Your task to perform on an android device: install app "Facebook Messenger" Image 0: 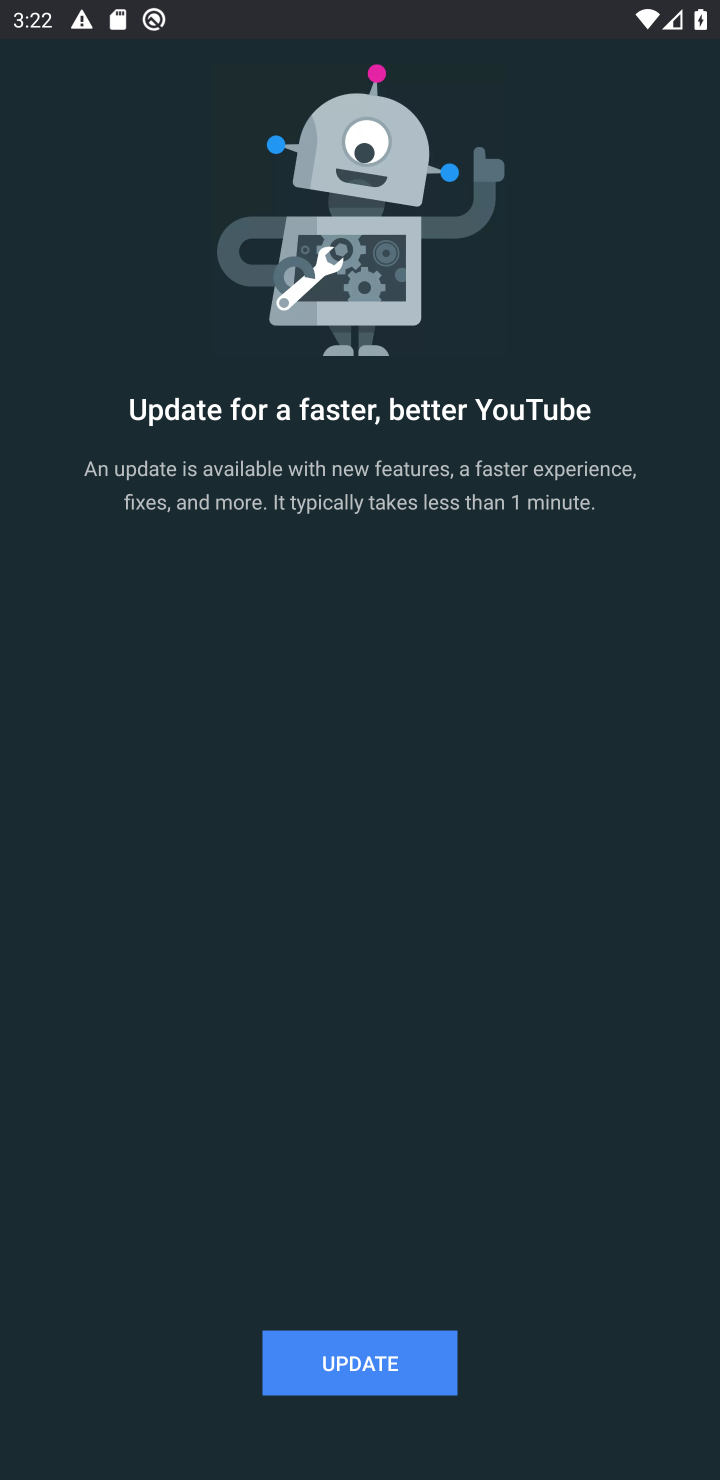
Step 0: press home button
Your task to perform on an android device: install app "Facebook Messenger" Image 1: 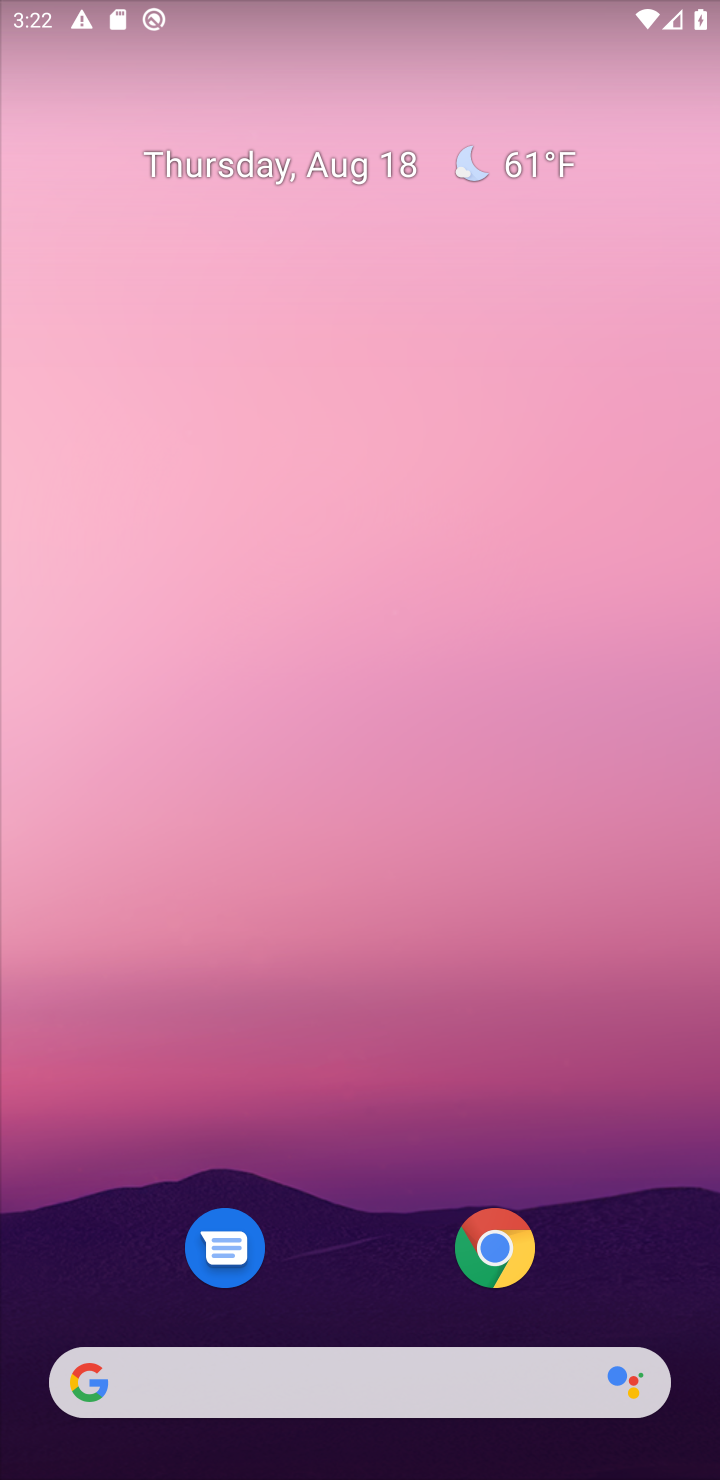
Step 1: drag from (380, 1128) to (368, 289)
Your task to perform on an android device: install app "Facebook Messenger" Image 2: 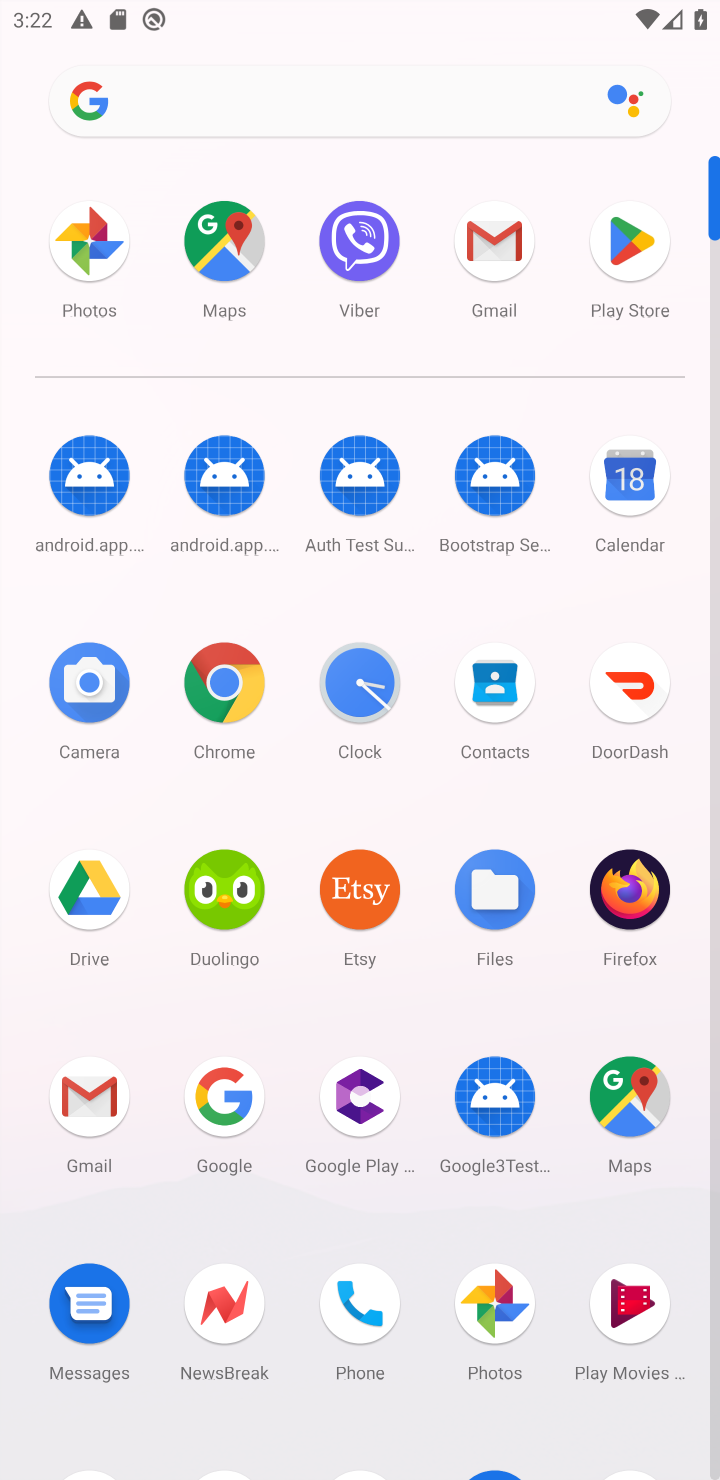
Step 2: click (622, 253)
Your task to perform on an android device: install app "Facebook Messenger" Image 3: 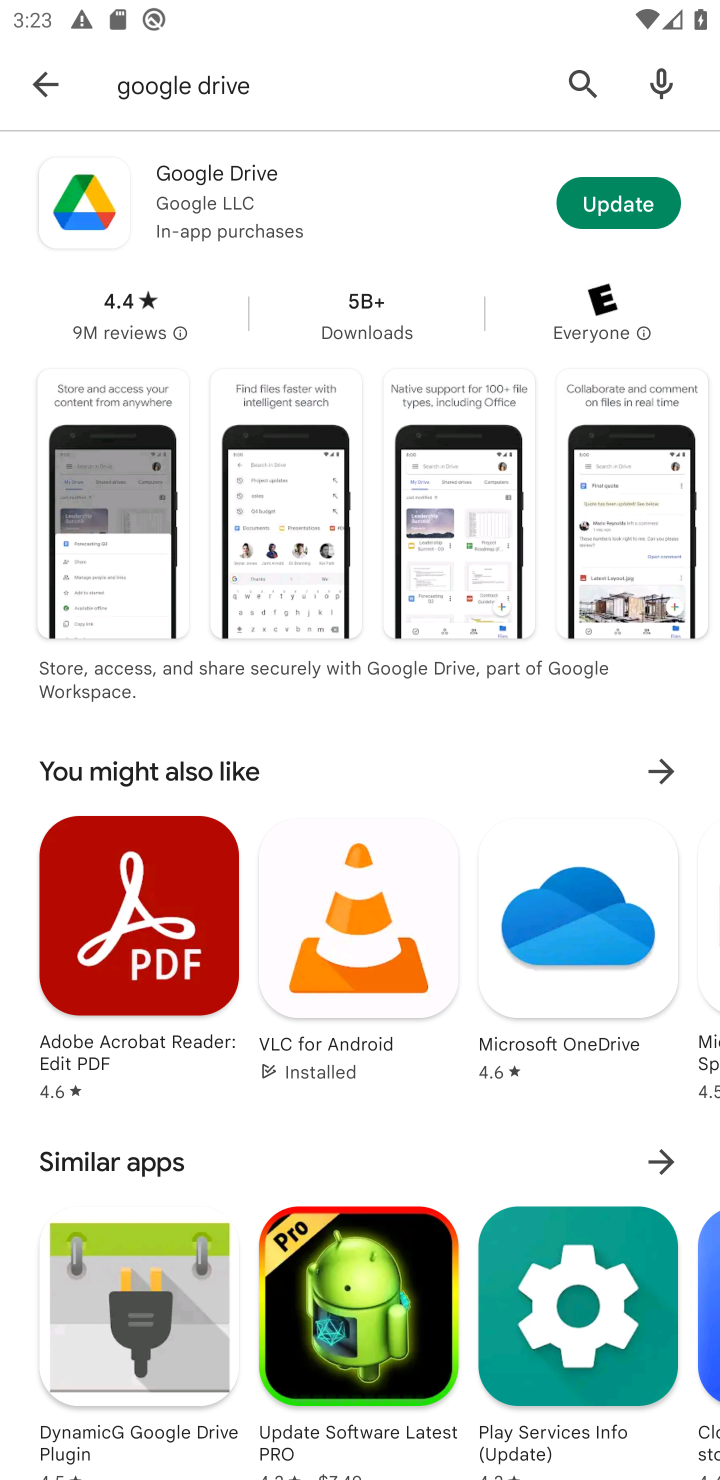
Step 3: click (581, 81)
Your task to perform on an android device: install app "Facebook Messenger" Image 4: 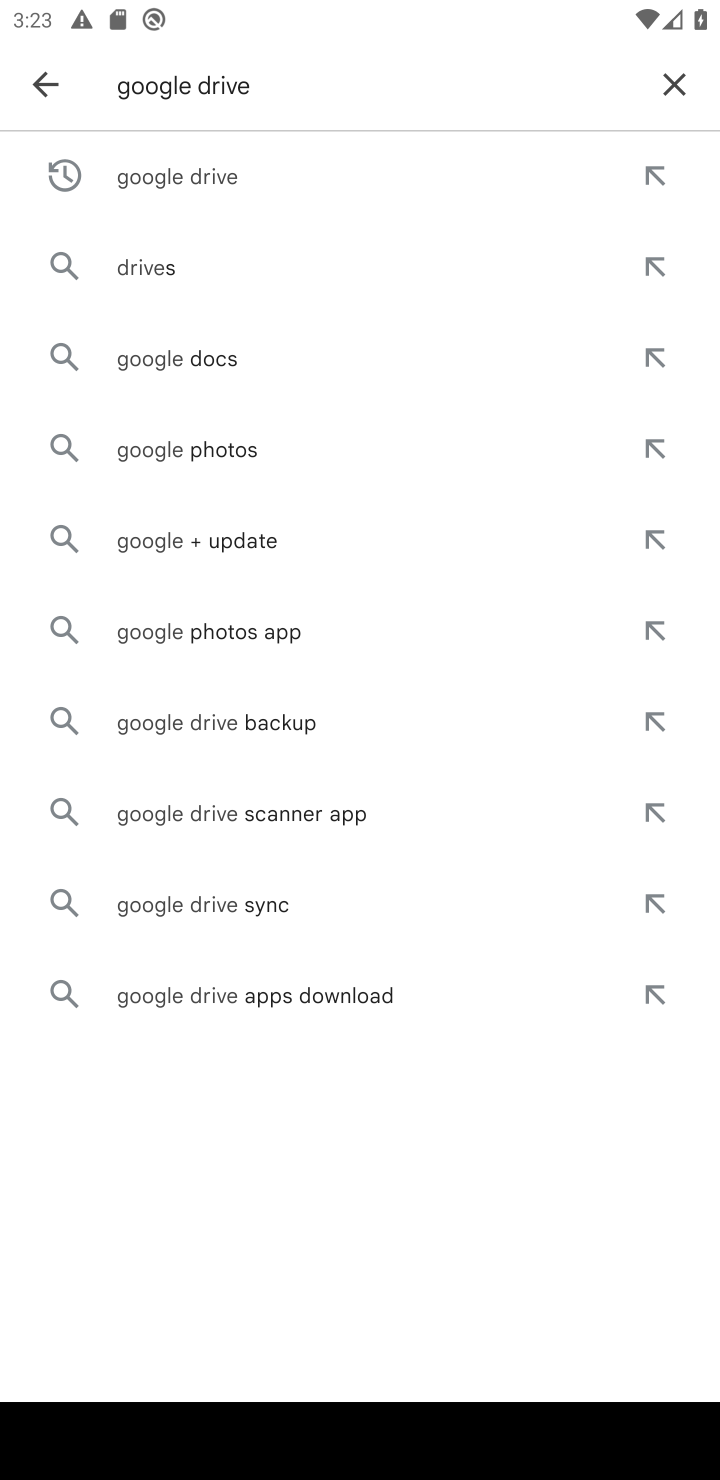
Step 4: click (672, 75)
Your task to perform on an android device: install app "Facebook Messenger" Image 5: 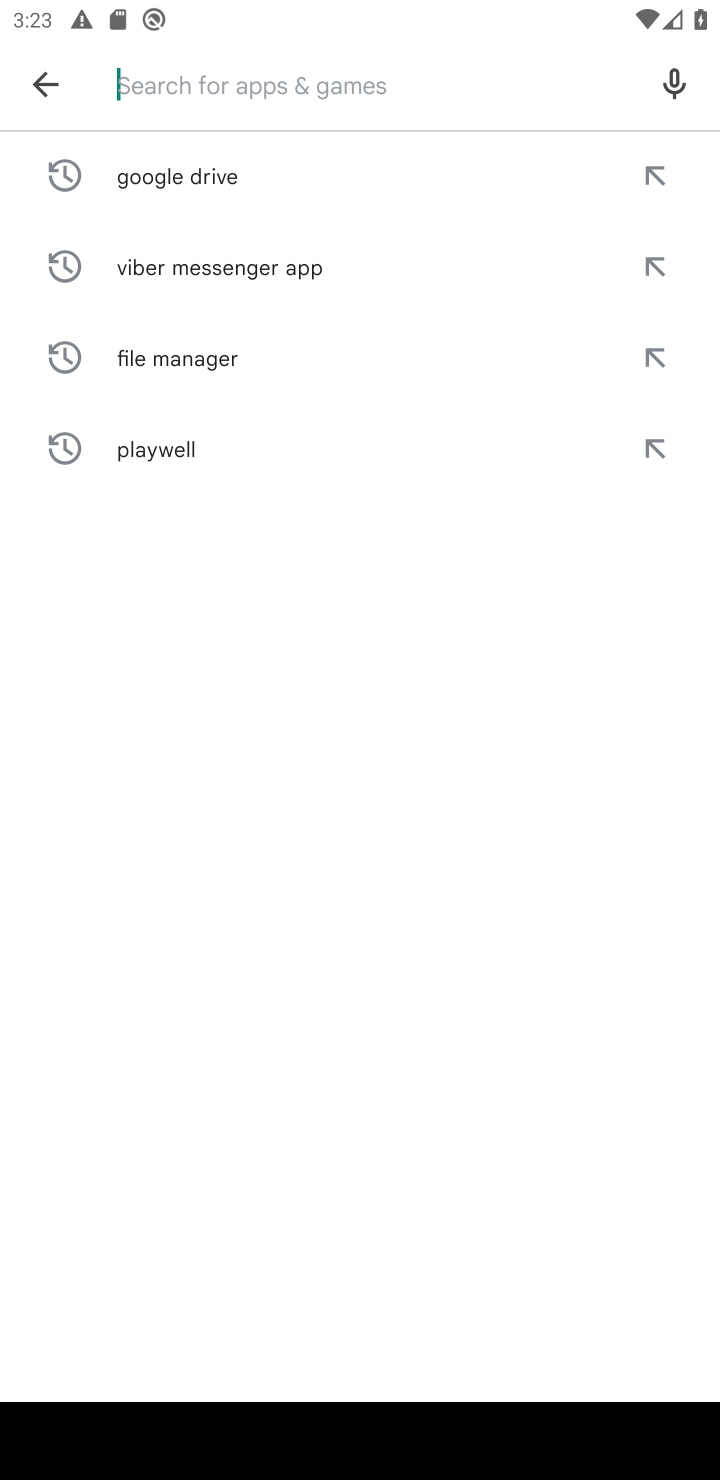
Step 5: type "Facebook Messenger"
Your task to perform on an android device: install app "Facebook Messenger" Image 6: 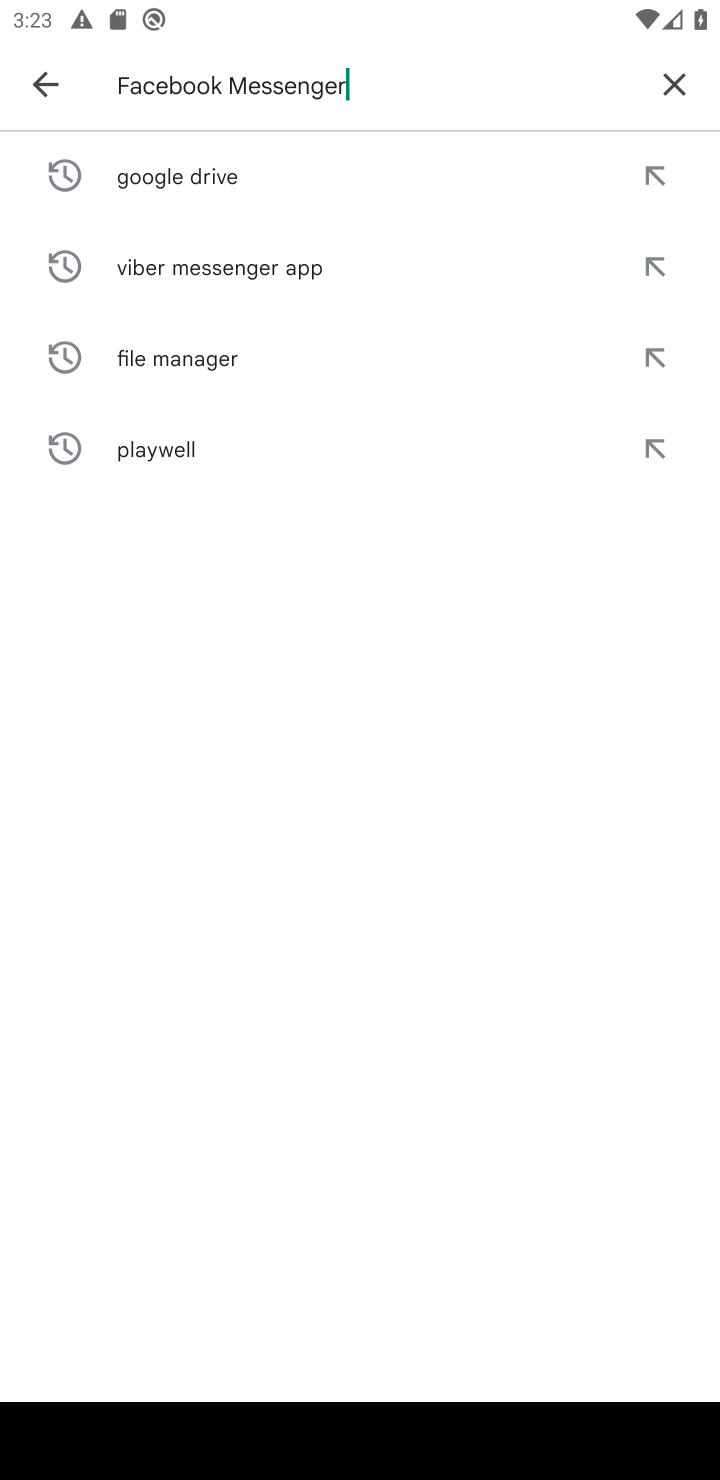
Step 6: type ""
Your task to perform on an android device: install app "Facebook Messenger" Image 7: 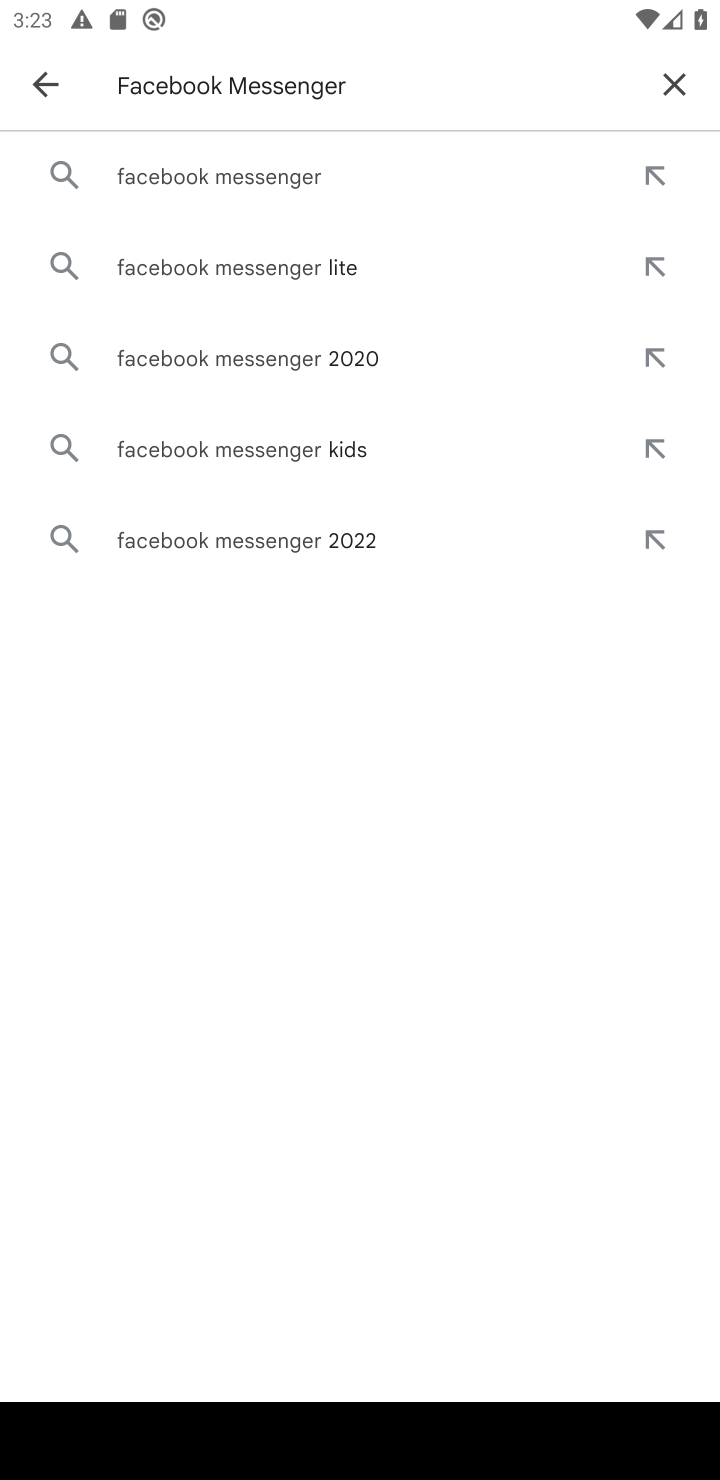
Step 7: click (225, 182)
Your task to perform on an android device: install app "Facebook Messenger" Image 8: 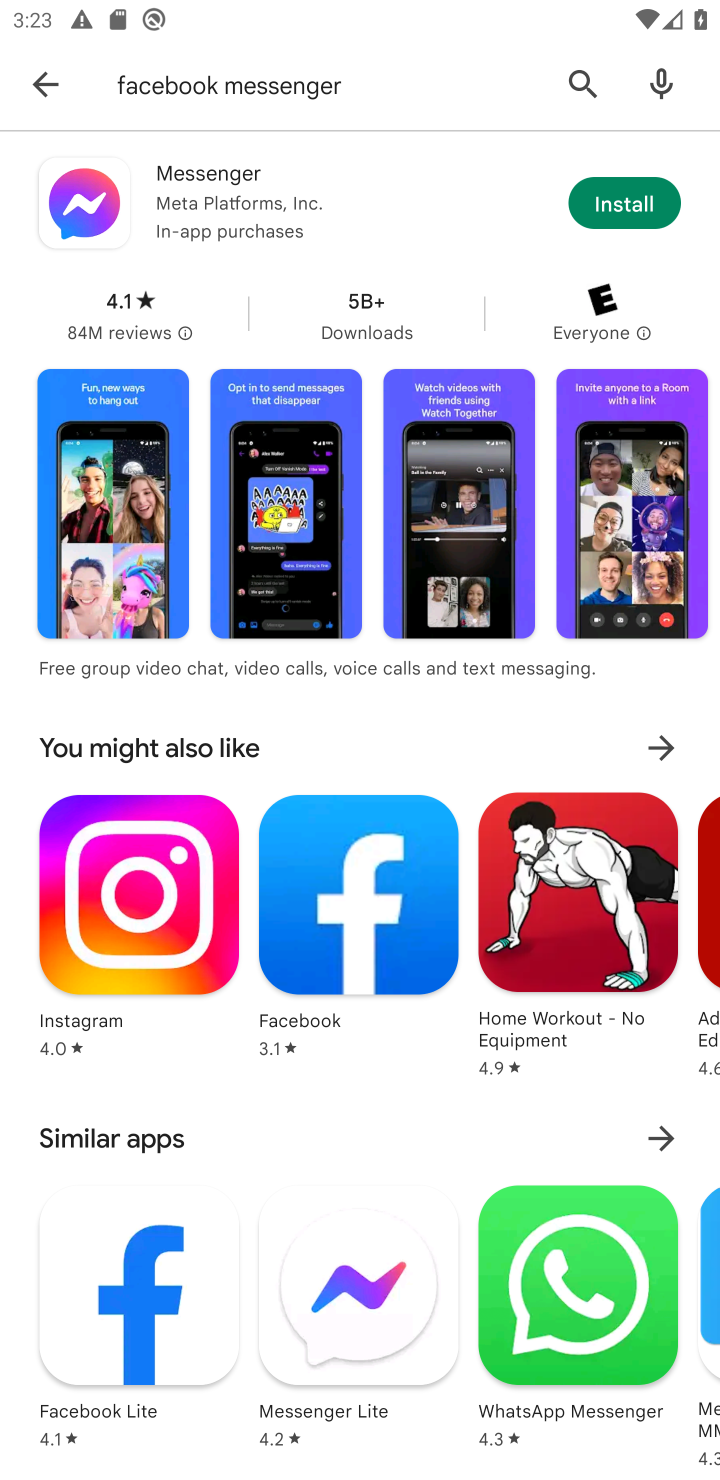
Step 8: click (619, 198)
Your task to perform on an android device: install app "Facebook Messenger" Image 9: 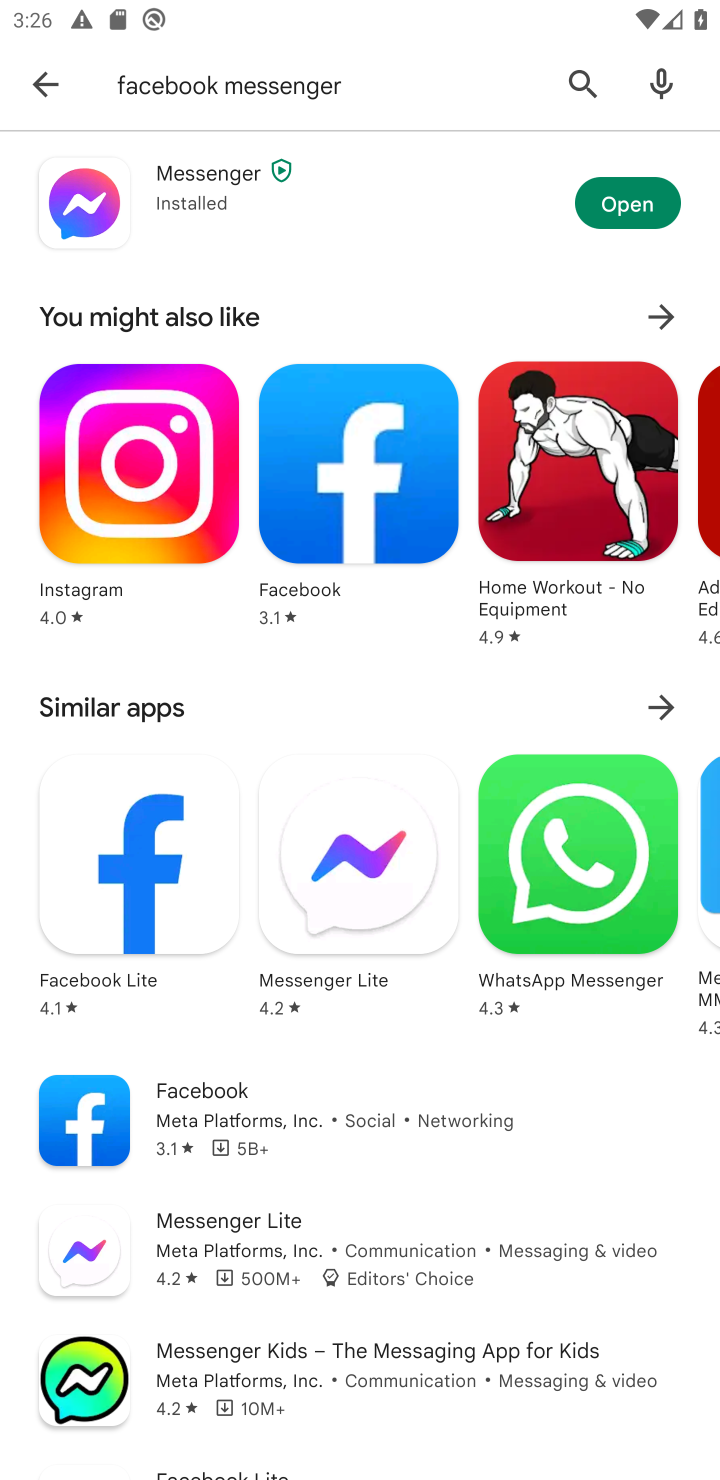
Step 9: task complete